Your task to perform on an android device: Search for "macbook pro 15 inch" on bestbuy.com, select the first entry, add it to the cart, then select checkout. Image 0: 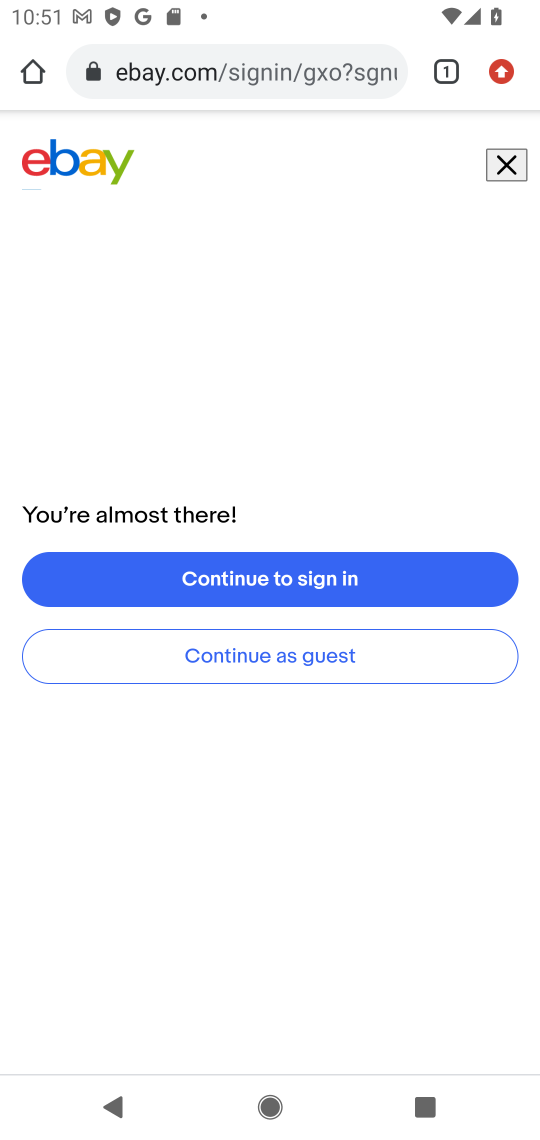
Step 0: click (288, 571)
Your task to perform on an android device: Search for "macbook pro 15 inch" on bestbuy.com, select the first entry, add it to the cart, then select checkout. Image 1: 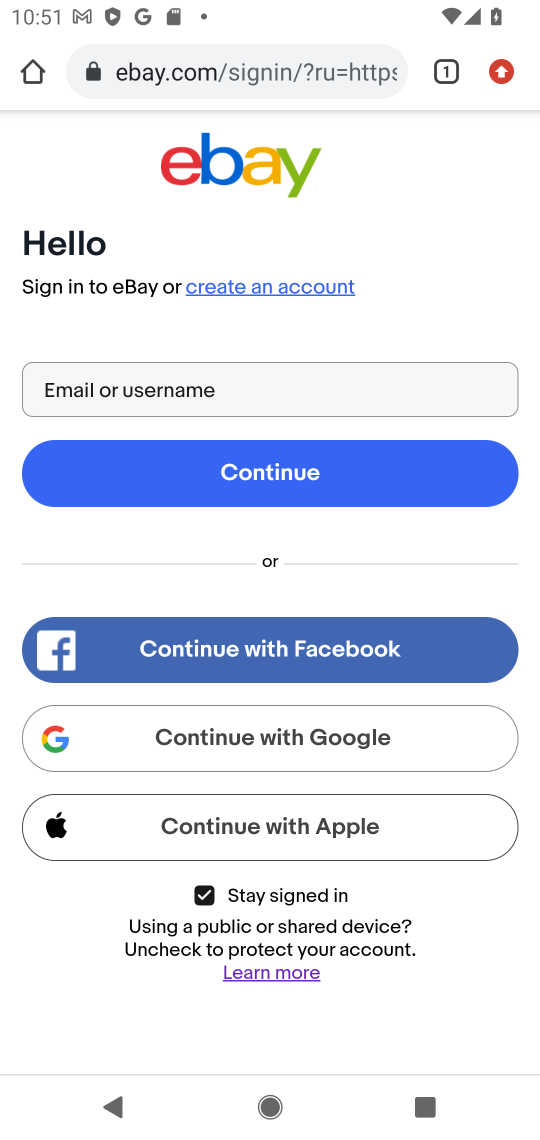
Step 1: task complete